Your task to perform on an android device: Go to Maps Image 0: 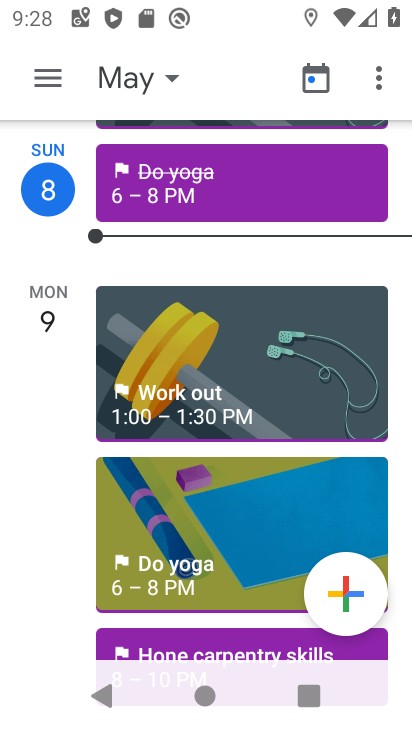
Step 0: press home button
Your task to perform on an android device: Go to Maps Image 1: 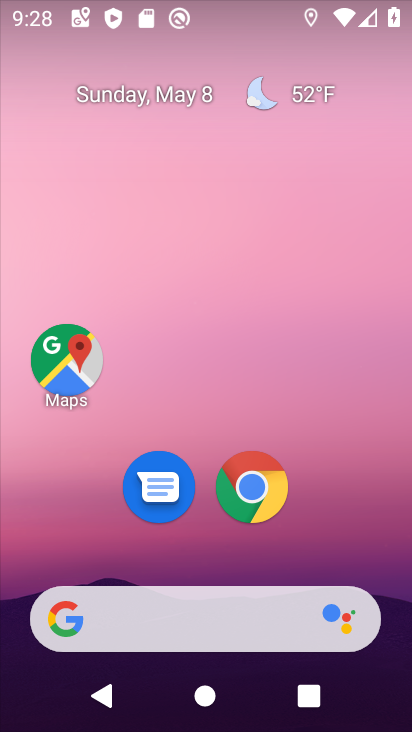
Step 1: drag from (399, 637) to (266, 52)
Your task to perform on an android device: Go to Maps Image 2: 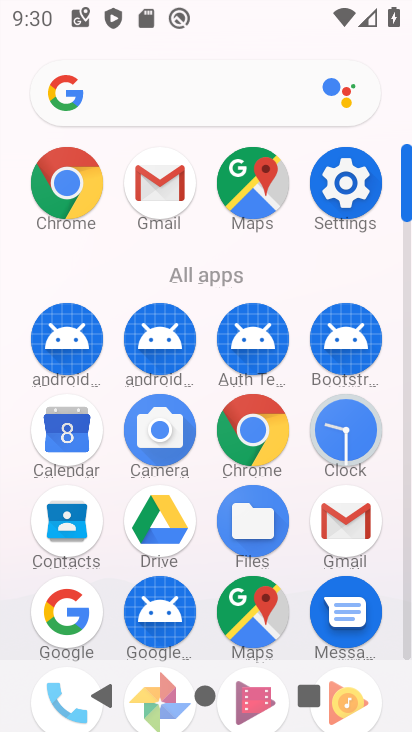
Step 2: click (253, 180)
Your task to perform on an android device: Go to Maps Image 3: 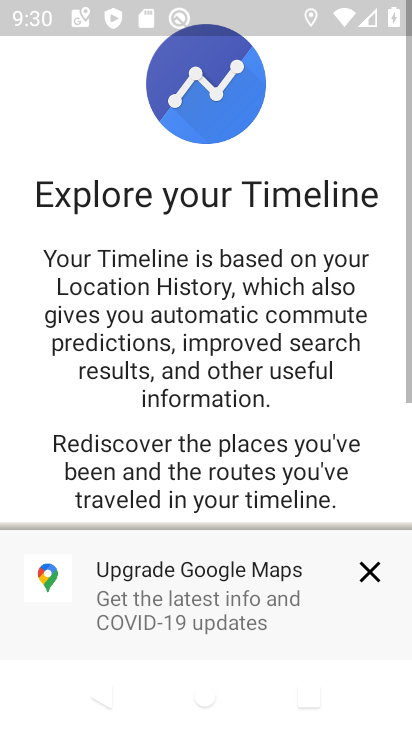
Step 3: click (379, 567)
Your task to perform on an android device: Go to Maps Image 4: 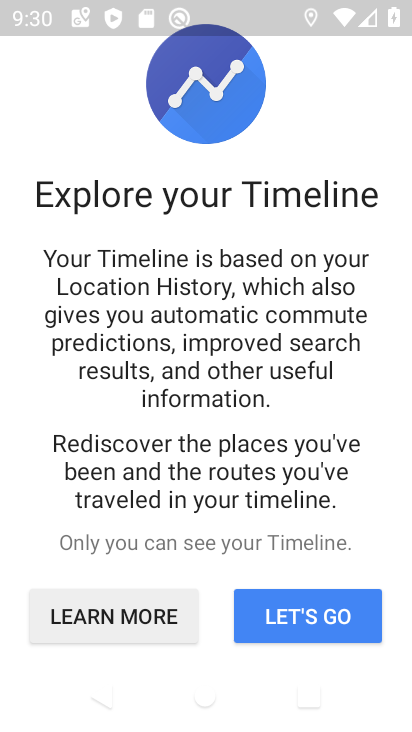
Step 4: task complete